Your task to perform on an android device: turn on the 12-hour format for clock Image 0: 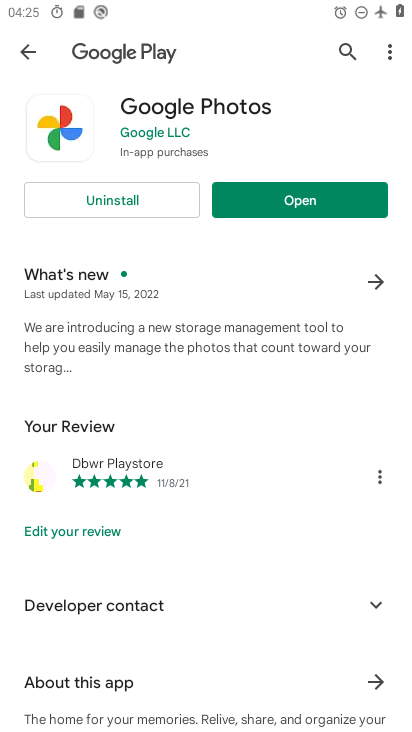
Step 0: press home button
Your task to perform on an android device: turn on the 12-hour format for clock Image 1: 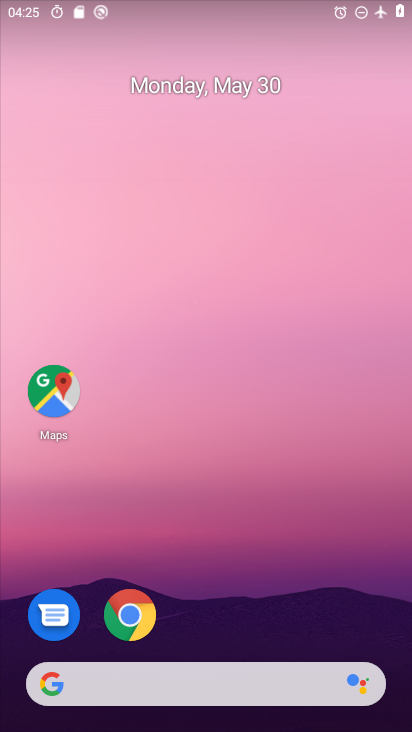
Step 1: drag from (224, 643) to (165, 77)
Your task to perform on an android device: turn on the 12-hour format for clock Image 2: 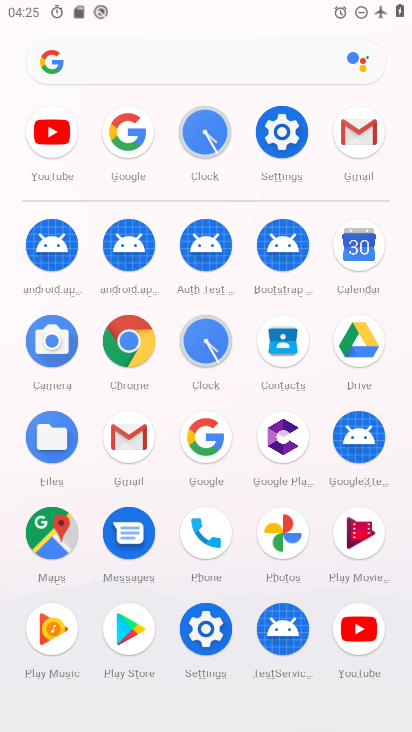
Step 2: click (204, 132)
Your task to perform on an android device: turn on the 12-hour format for clock Image 3: 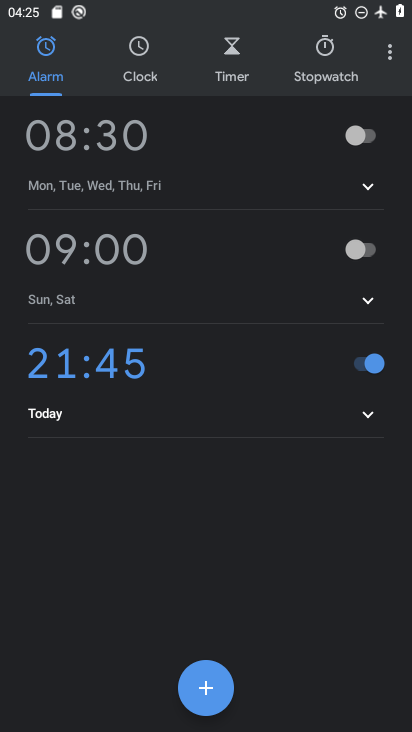
Step 3: click (389, 53)
Your task to perform on an android device: turn on the 12-hour format for clock Image 4: 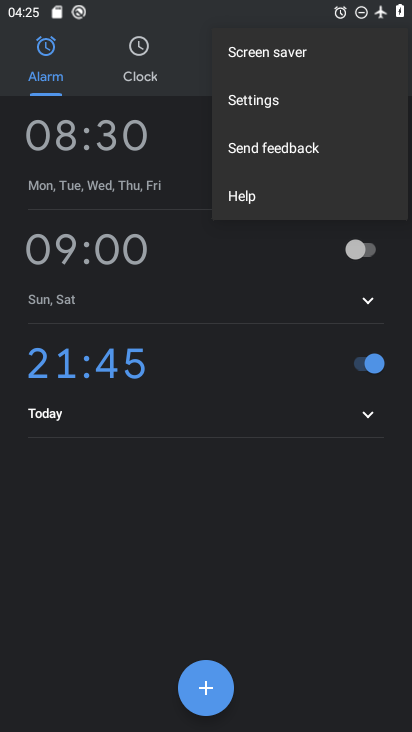
Step 4: click (274, 101)
Your task to perform on an android device: turn on the 12-hour format for clock Image 5: 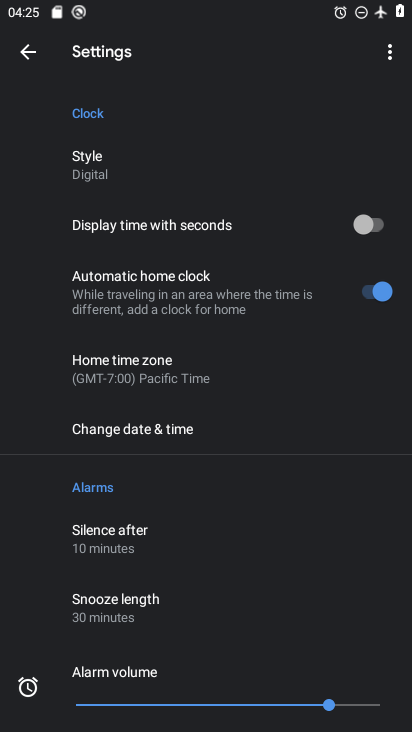
Step 5: click (136, 433)
Your task to perform on an android device: turn on the 12-hour format for clock Image 6: 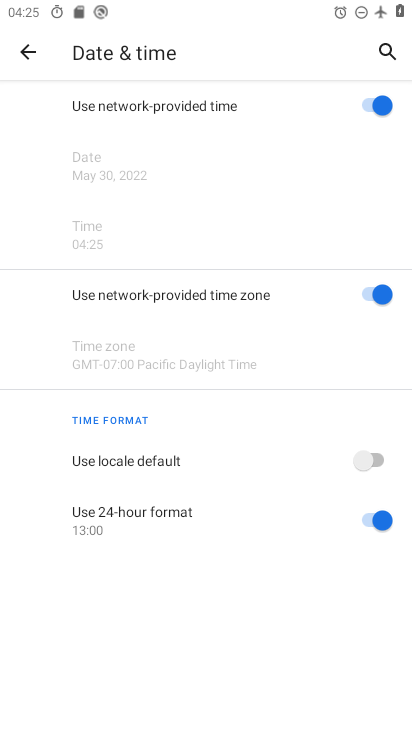
Step 6: click (384, 525)
Your task to perform on an android device: turn on the 12-hour format for clock Image 7: 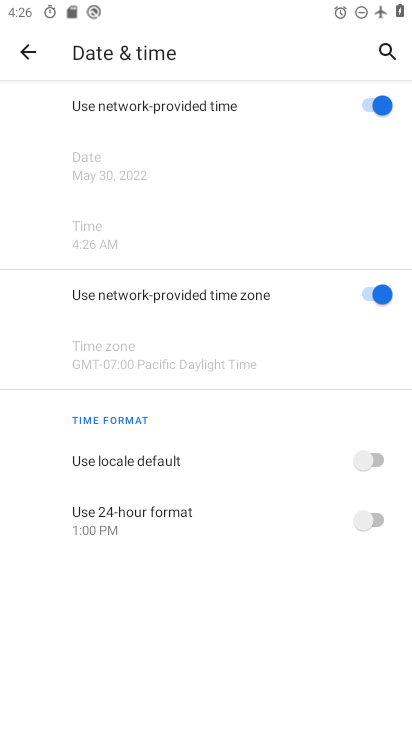
Step 7: click (369, 455)
Your task to perform on an android device: turn on the 12-hour format for clock Image 8: 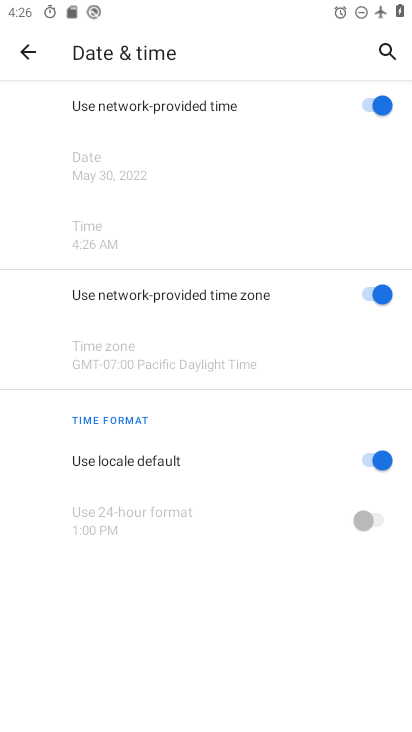
Step 8: task complete